Your task to perform on an android device: Go to display settings Image 0: 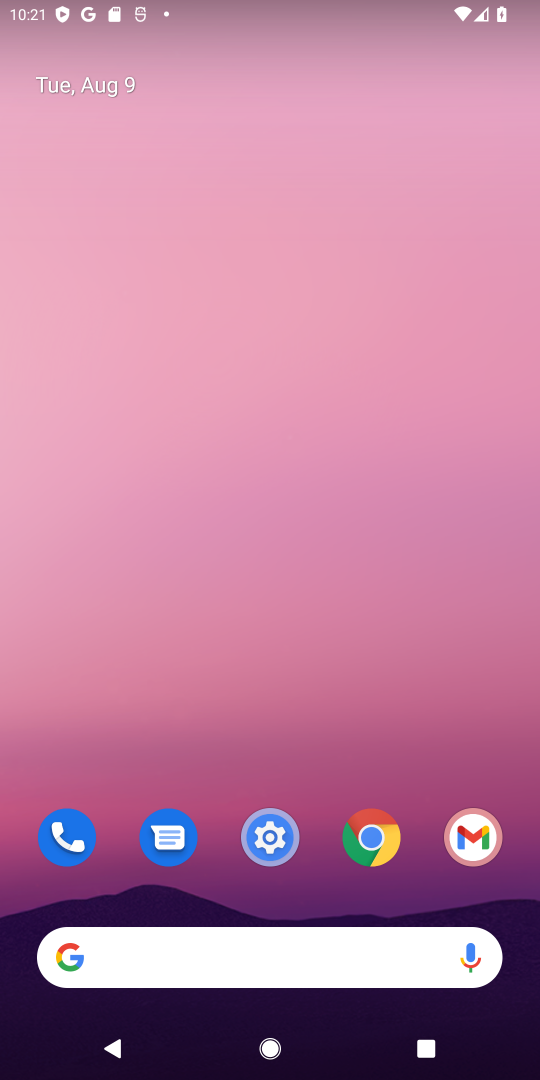
Step 0: click (271, 841)
Your task to perform on an android device: Go to display settings Image 1: 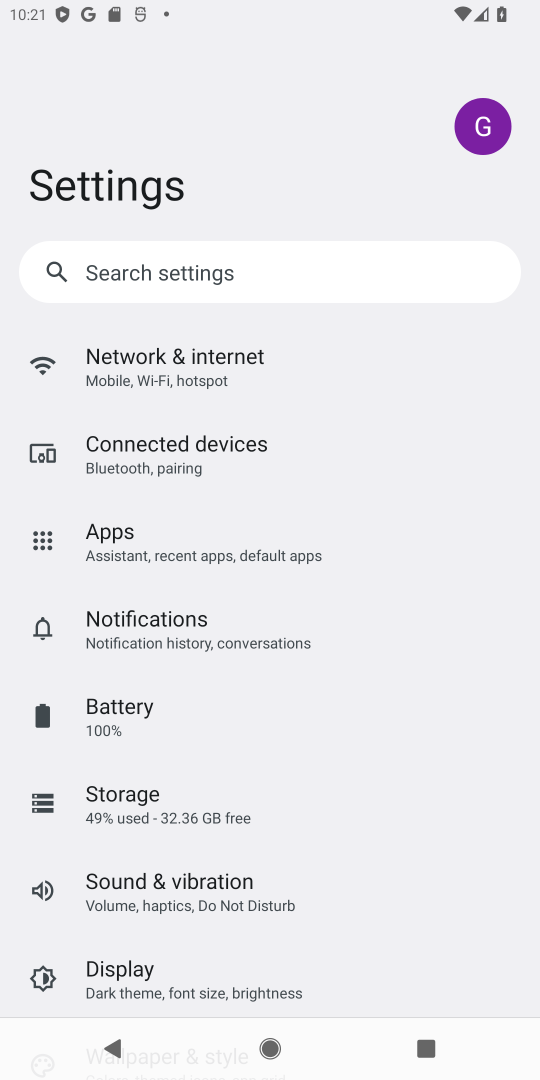
Step 1: click (114, 966)
Your task to perform on an android device: Go to display settings Image 2: 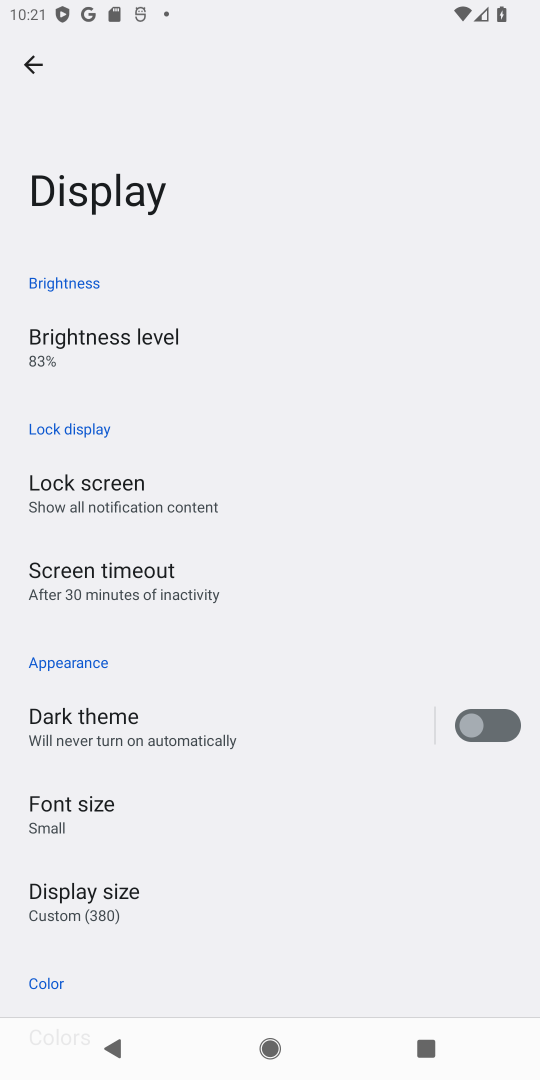
Step 2: task complete